Your task to perform on an android device: toggle sleep mode Image 0: 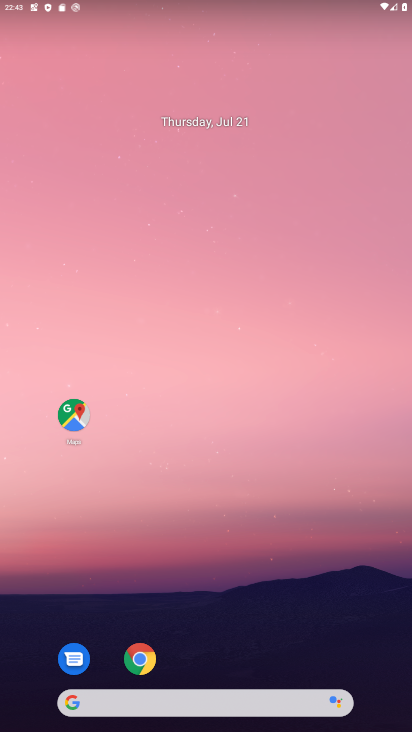
Step 0: drag from (264, 657) to (290, 82)
Your task to perform on an android device: toggle sleep mode Image 1: 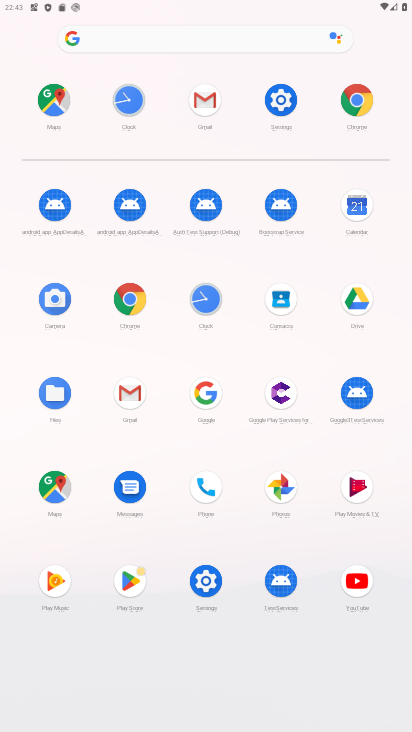
Step 1: click (279, 103)
Your task to perform on an android device: toggle sleep mode Image 2: 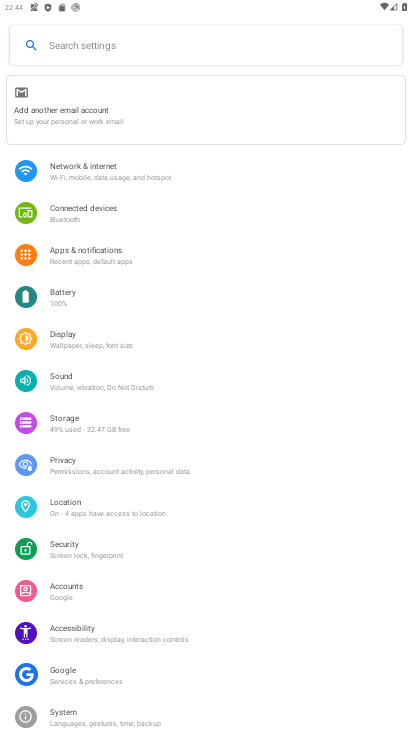
Step 2: click (108, 342)
Your task to perform on an android device: toggle sleep mode Image 3: 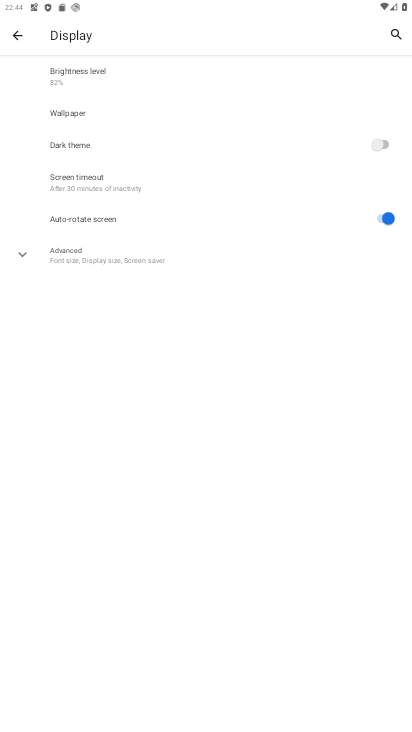
Step 3: click (134, 188)
Your task to perform on an android device: toggle sleep mode Image 4: 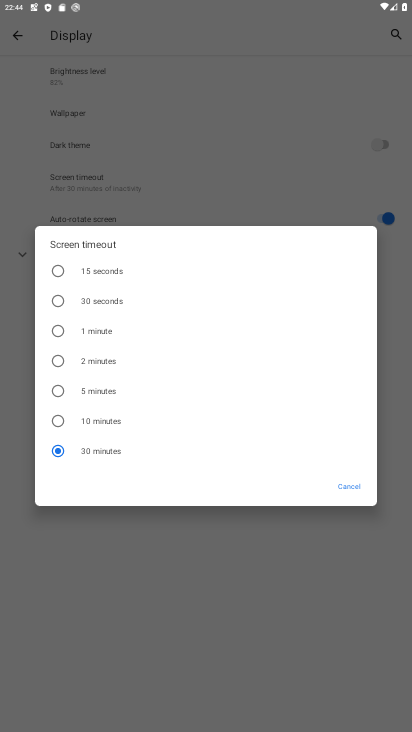
Step 4: click (99, 414)
Your task to perform on an android device: toggle sleep mode Image 5: 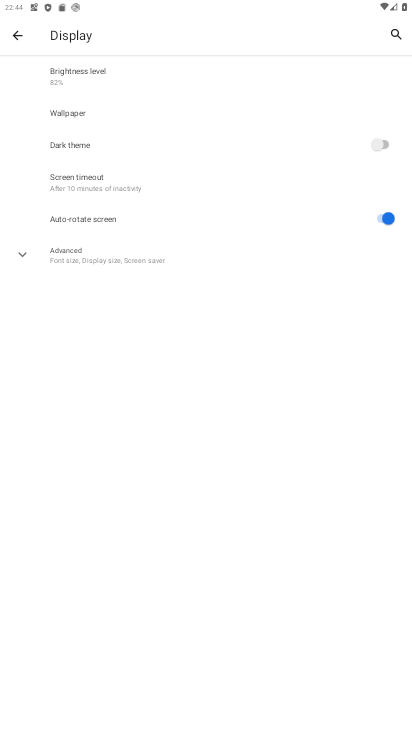
Step 5: task complete